Your task to perform on an android device: delete the emails in spam in the gmail app Image 0: 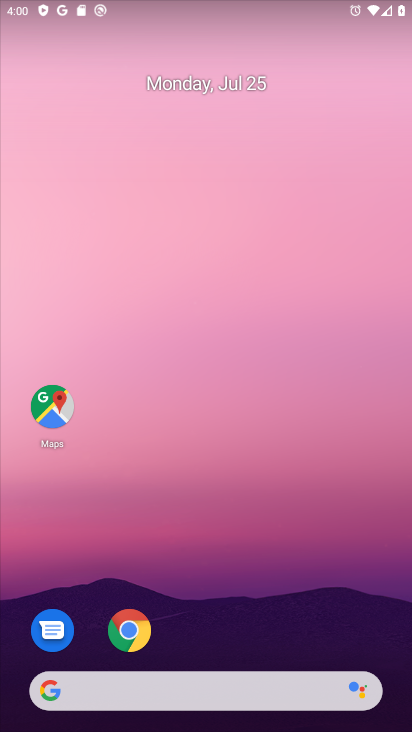
Step 0: drag from (206, 695) to (247, 196)
Your task to perform on an android device: delete the emails in spam in the gmail app Image 1: 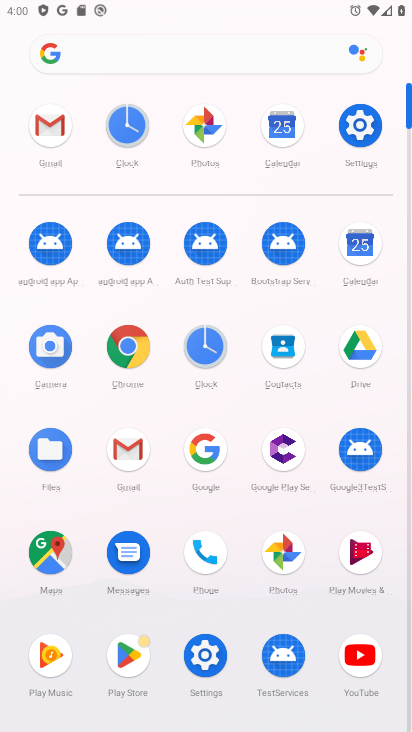
Step 1: click (46, 122)
Your task to perform on an android device: delete the emails in spam in the gmail app Image 2: 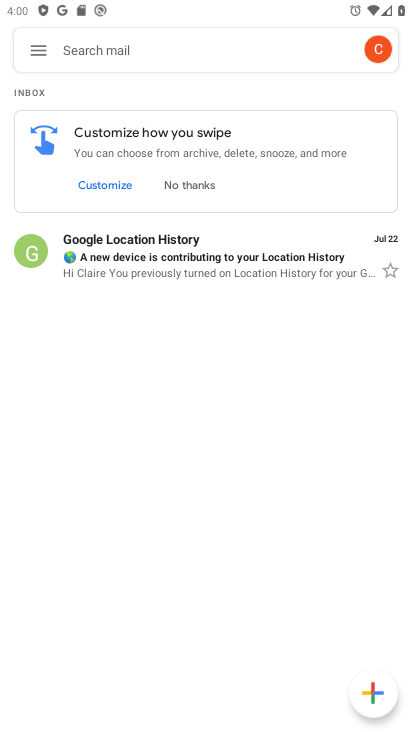
Step 2: click (38, 50)
Your task to perform on an android device: delete the emails in spam in the gmail app Image 3: 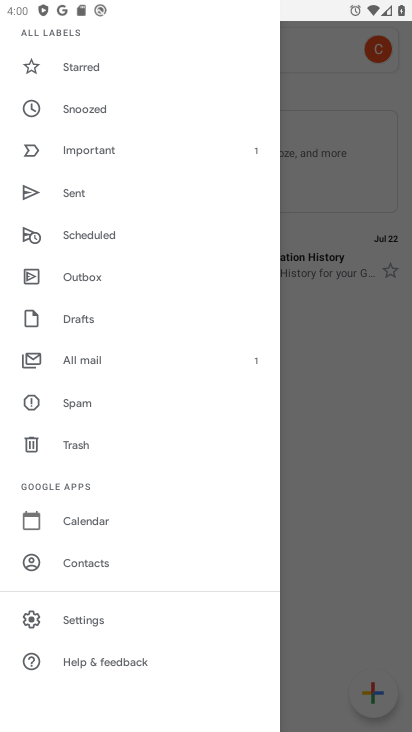
Step 3: click (72, 404)
Your task to perform on an android device: delete the emails in spam in the gmail app Image 4: 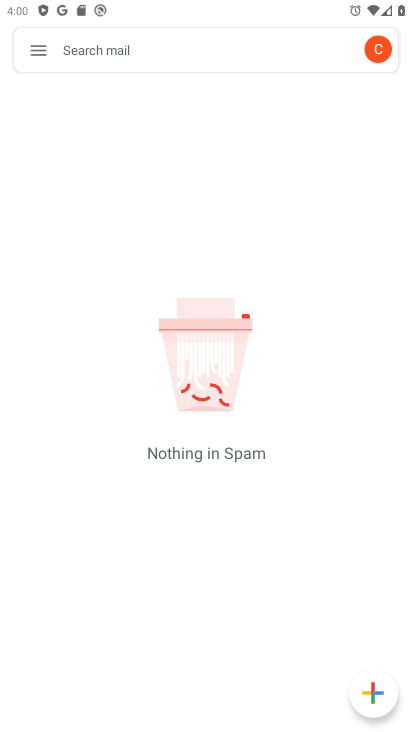
Step 4: task complete